Your task to perform on an android device: turn on showing notifications on the lock screen Image 0: 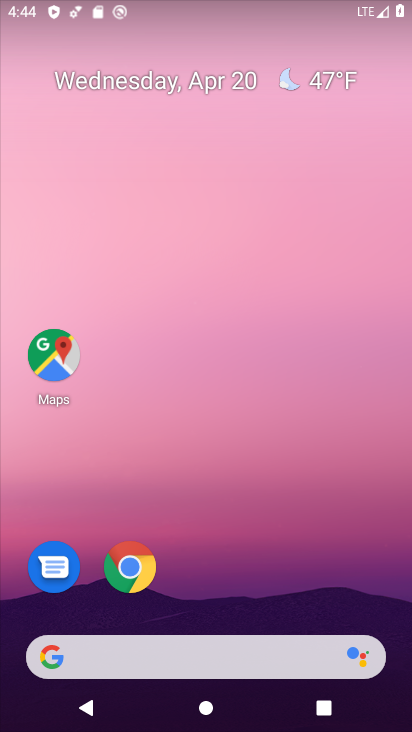
Step 0: drag from (276, 494) to (247, 33)
Your task to perform on an android device: turn on showing notifications on the lock screen Image 1: 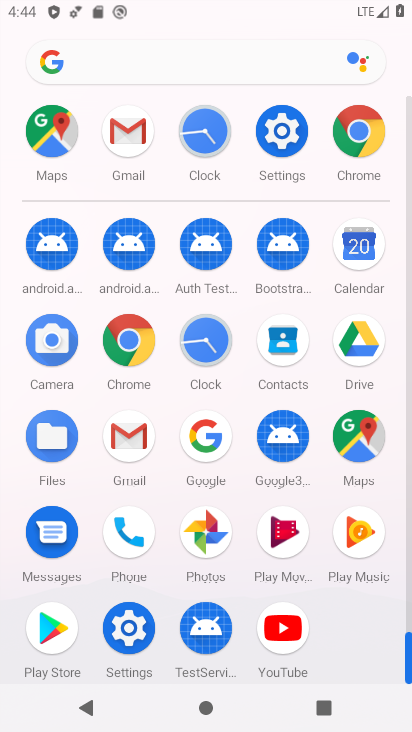
Step 1: drag from (4, 478) to (3, 207)
Your task to perform on an android device: turn on showing notifications on the lock screen Image 2: 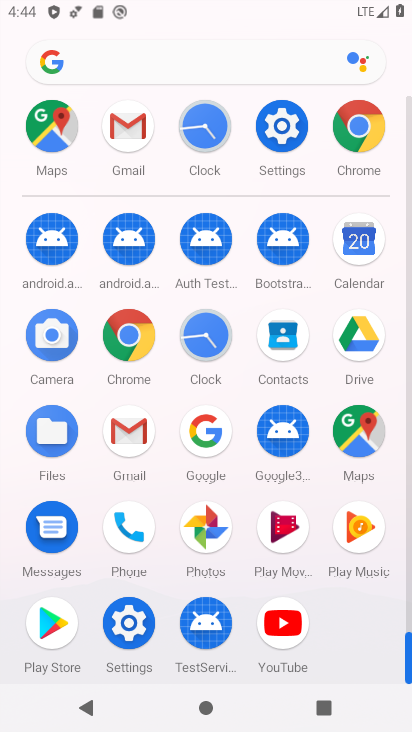
Step 2: click (127, 618)
Your task to perform on an android device: turn on showing notifications on the lock screen Image 3: 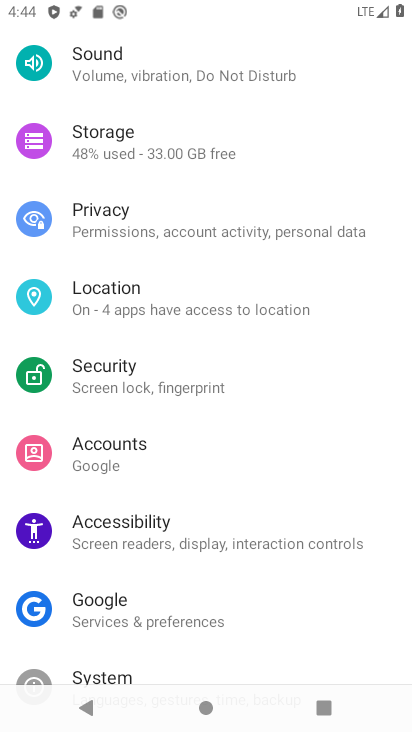
Step 3: drag from (280, 155) to (240, 607)
Your task to perform on an android device: turn on showing notifications on the lock screen Image 4: 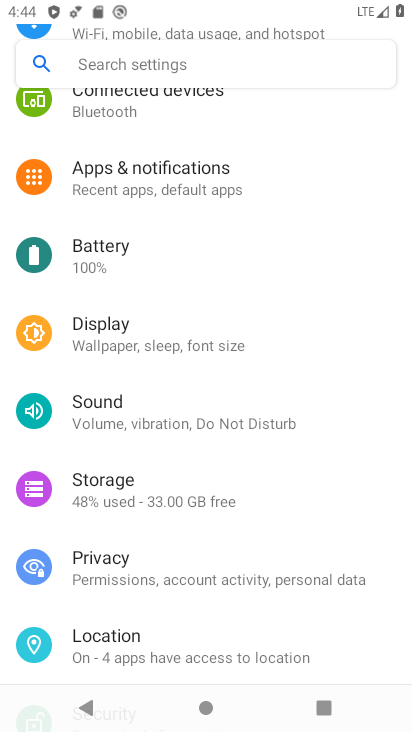
Step 4: click (217, 165)
Your task to perform on an android device: turn on showing notifications on the lock screen Image 5: 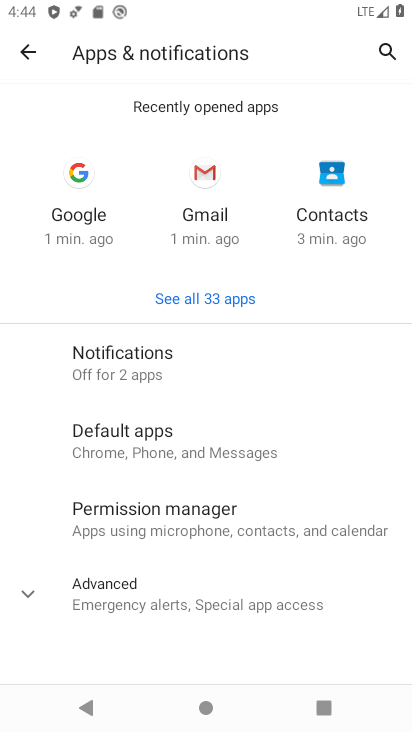
Step 5: click (155, 379)
Your task to perform on an android device: turn on showing notifications on the lock screen Image 6: 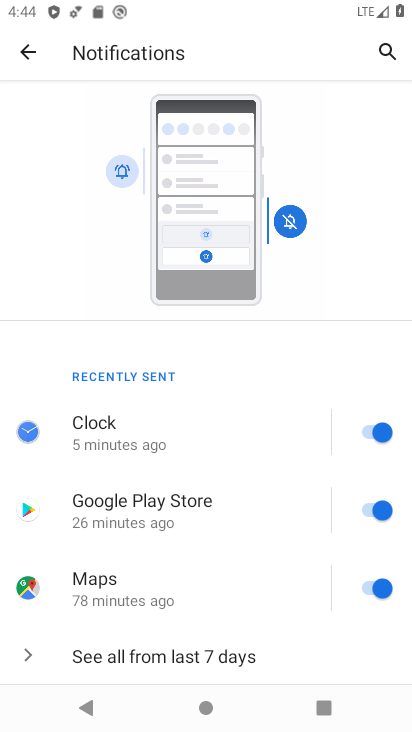
Step 6: click (216, 167)
Your task to perform on an android device: turn on showing notifications on the lock screen Image 7: 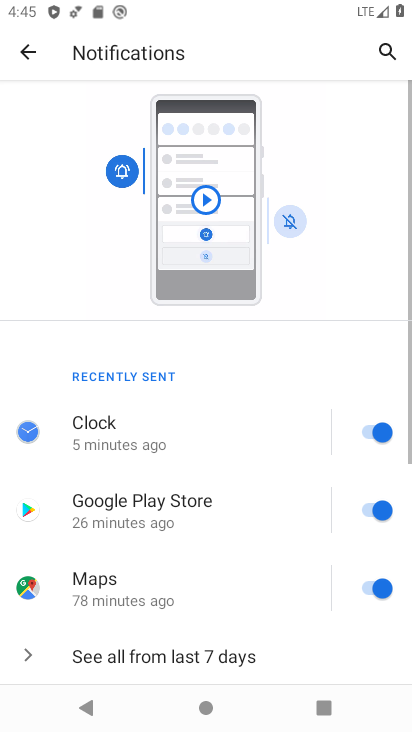
Step 7: drag from (248, 533) to (299, 181)
Your task to perform on an android device: turn on showing notifications on the lock screen Image 8: 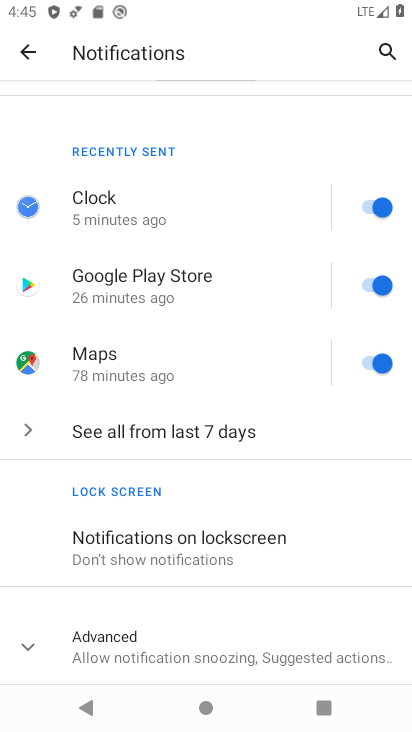
Step 8: click (216, 547)
Your task to perform on an android device: turn on showing notifications on the lock screen Image 9: 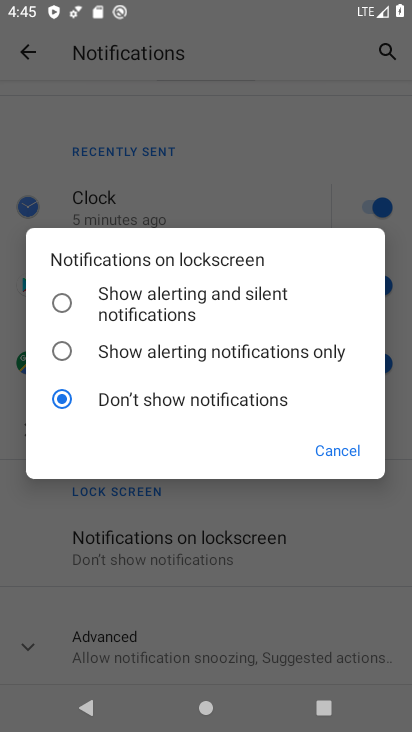
Step 9: click (188, 314)
Your task to perform on an android device: turn on showing notifications on the lock screen Image 10: 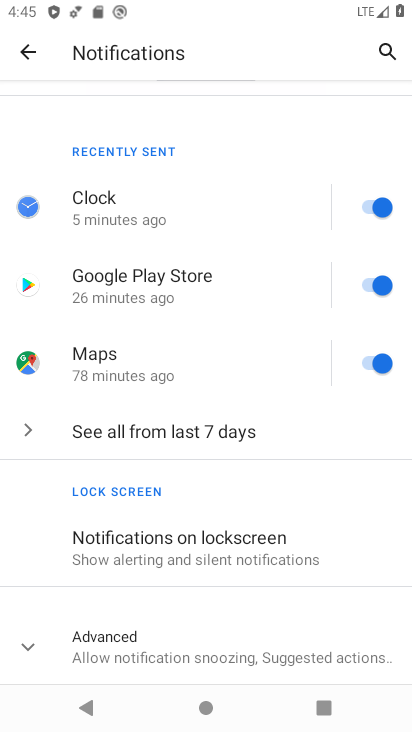
Step 10: task complete